Your task to perform on an android device: turn off notifications settings in the gmail app Image 0: 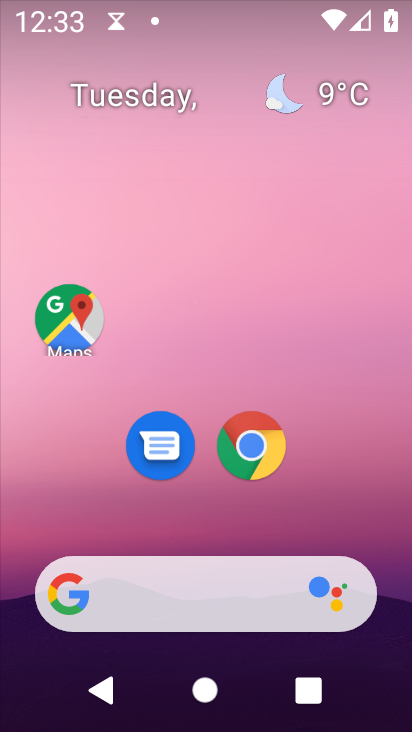
Step 0: drag from (333, 593) to (259, 6)
Your task to perform on an android device: turn off notifications settings in the gmail app Image 1: 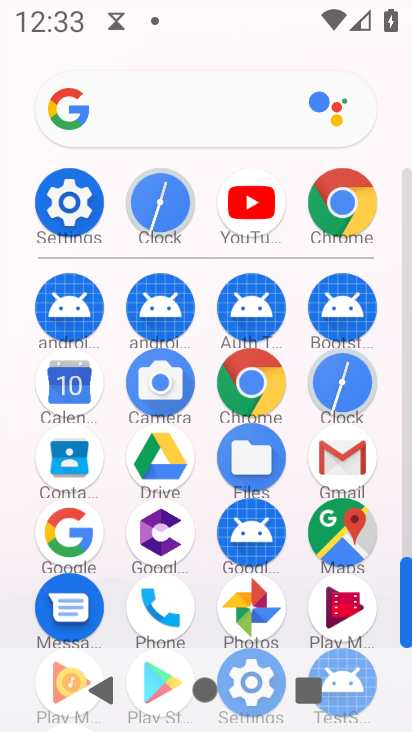
Step 1: click (356, 468)
Your task to perform on an android device: turn off notifications settings in the gmail app Image 2: 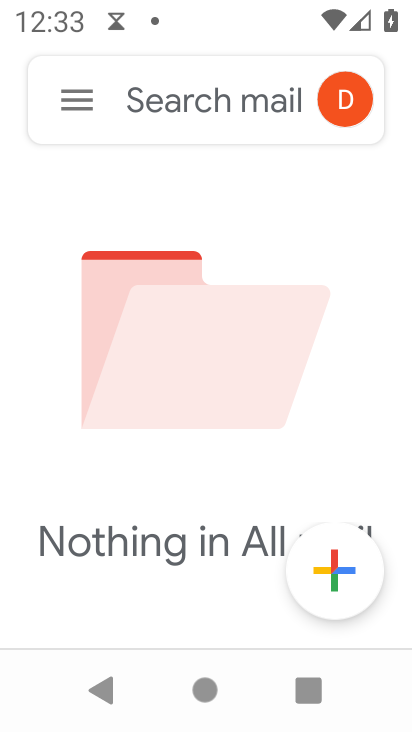
Step 2: drag from (80, 96) to (154, 445)
Your task to perform on an android device: turn off notifications settings in the gmail app Image 3: 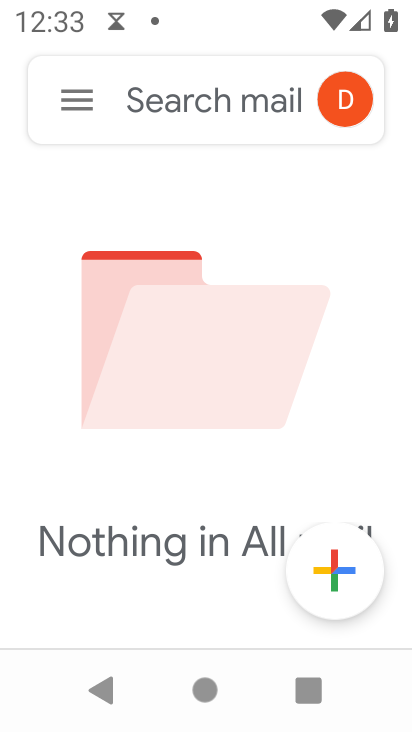
Step 3: click (70, 99)
Your task to perform on an android device: turn off notifications settings in the gmail app Image 4: 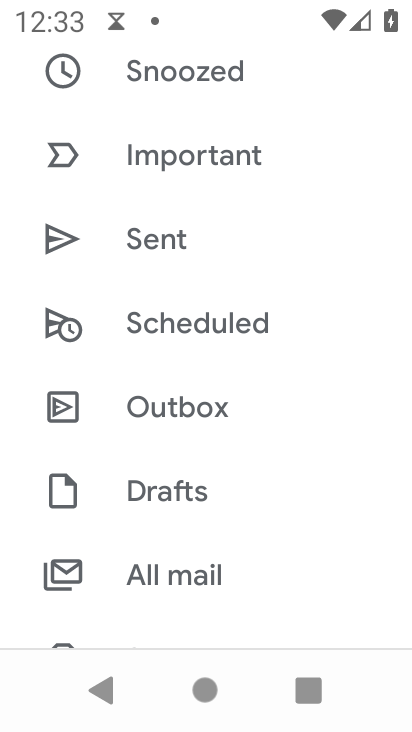
Step 4: drag from (222, 589) to (268, 70)
Your task to perform on an android device: turn off notifications settings in the gmail app Image 5: 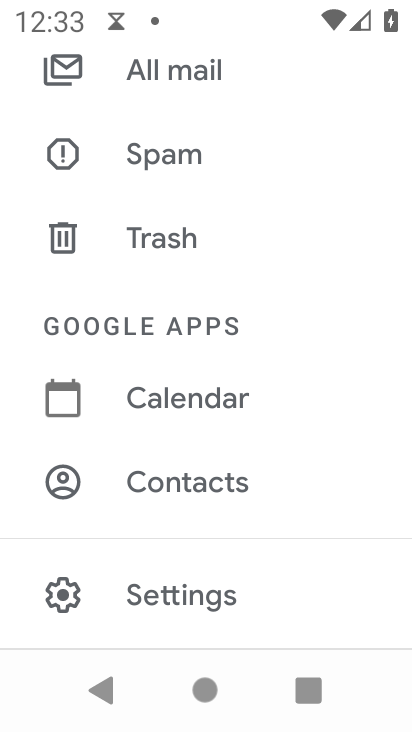
Step 5: click (202, 605)
Your task to perform on an android device: turn off notifications settings in the gmail app Image 6: 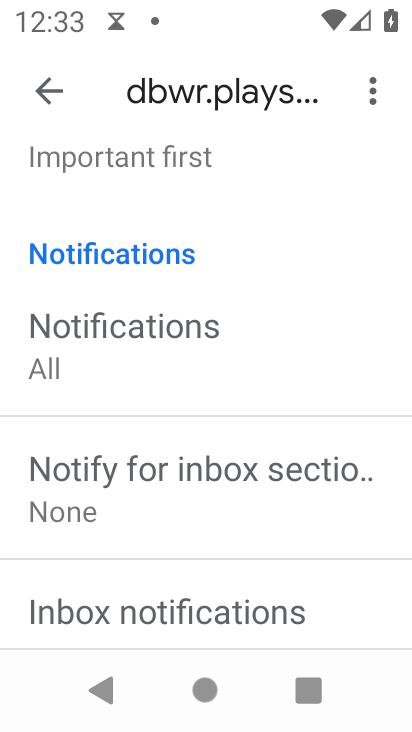
Step 6: drag from (225, 648) to (215, 208)
Your task to perform on an android device: turn off notifications settings in the gmail app Image 7: 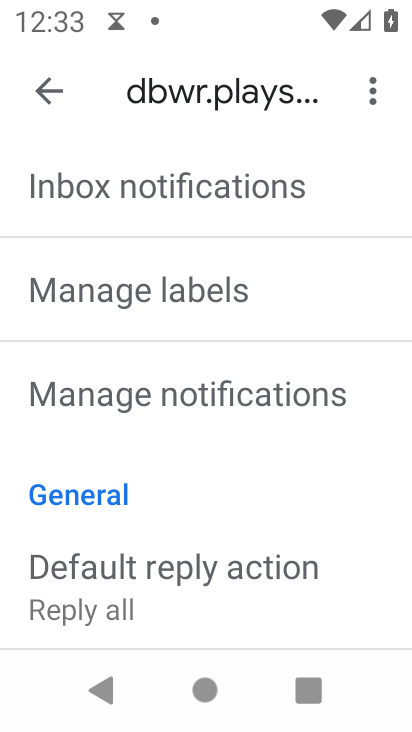
Step 7: click (292, 395)
Your task to perform on an android device: turn off notifications settings in the gmail app Image 8: 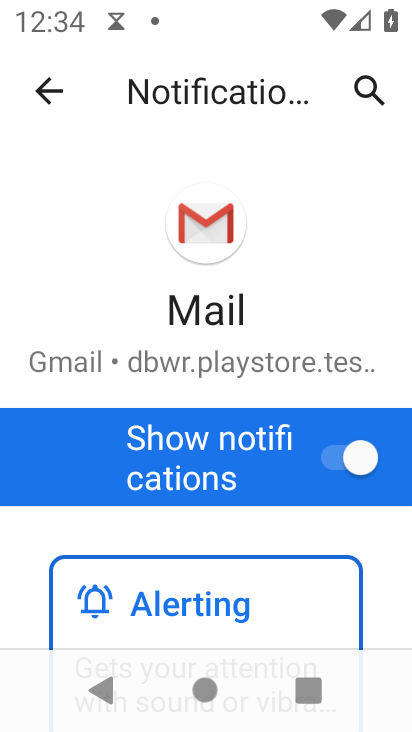
Step 8: click (328, 461)
Your task to perform on an android device: turn off notifications settings in the gmail app Image 9: 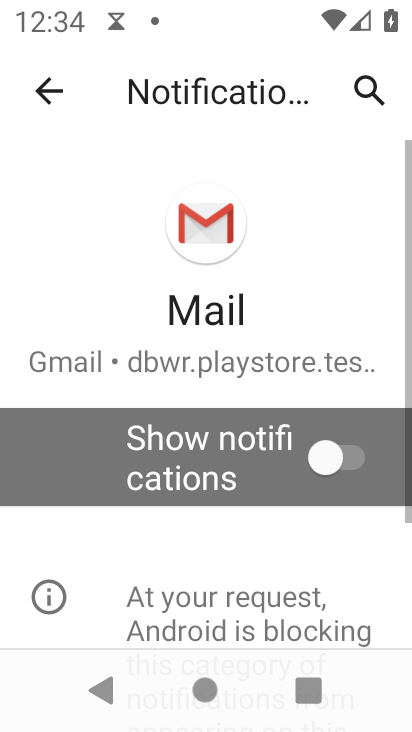
Step 9: task complete